Your task to perform on an android device: open app "The Home Depot" Image 0: 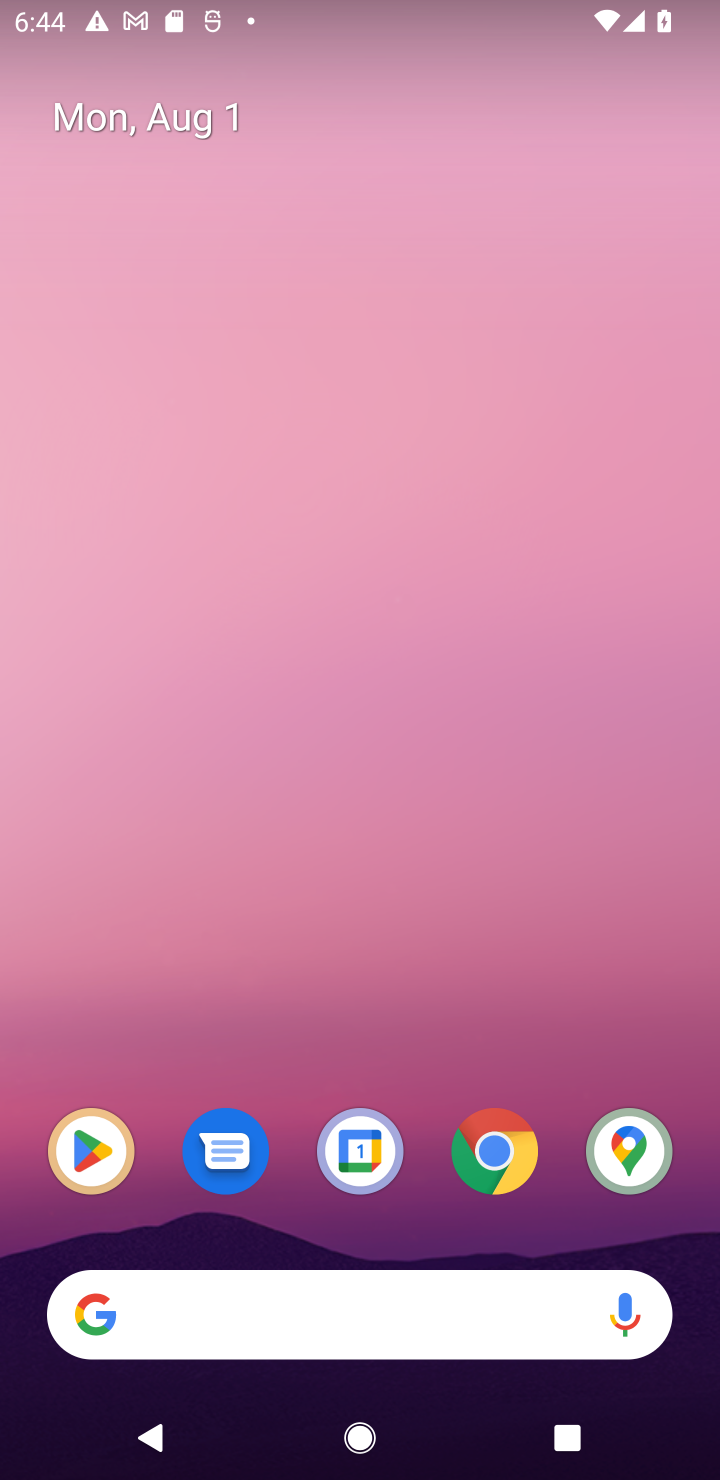
Step 0: drag from (344, 1311) to (244, 393)
Your task to perform on an android device: open app "The Home Depot" Image 1: 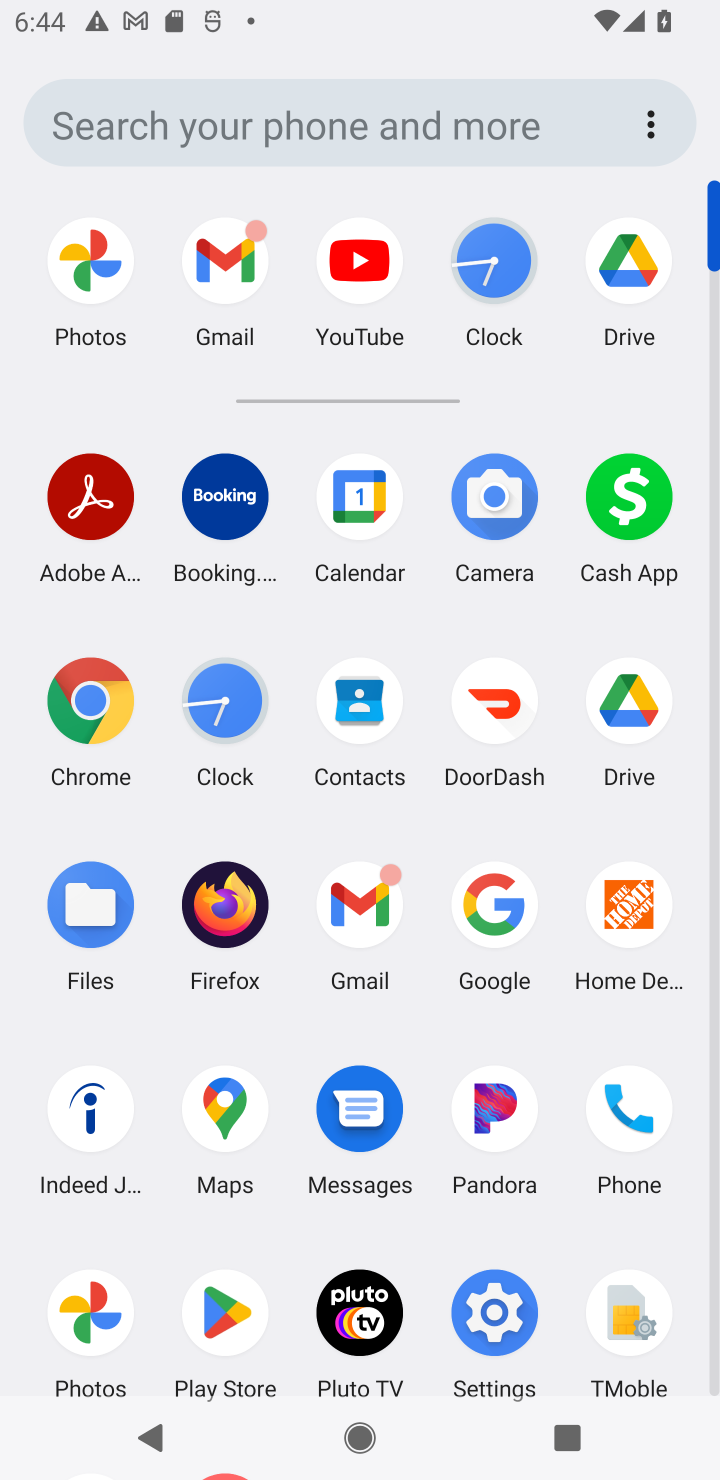
Step 1: click (224, 1301)
Your task to perform on an android device: open app "The Home Depot" Image 2: 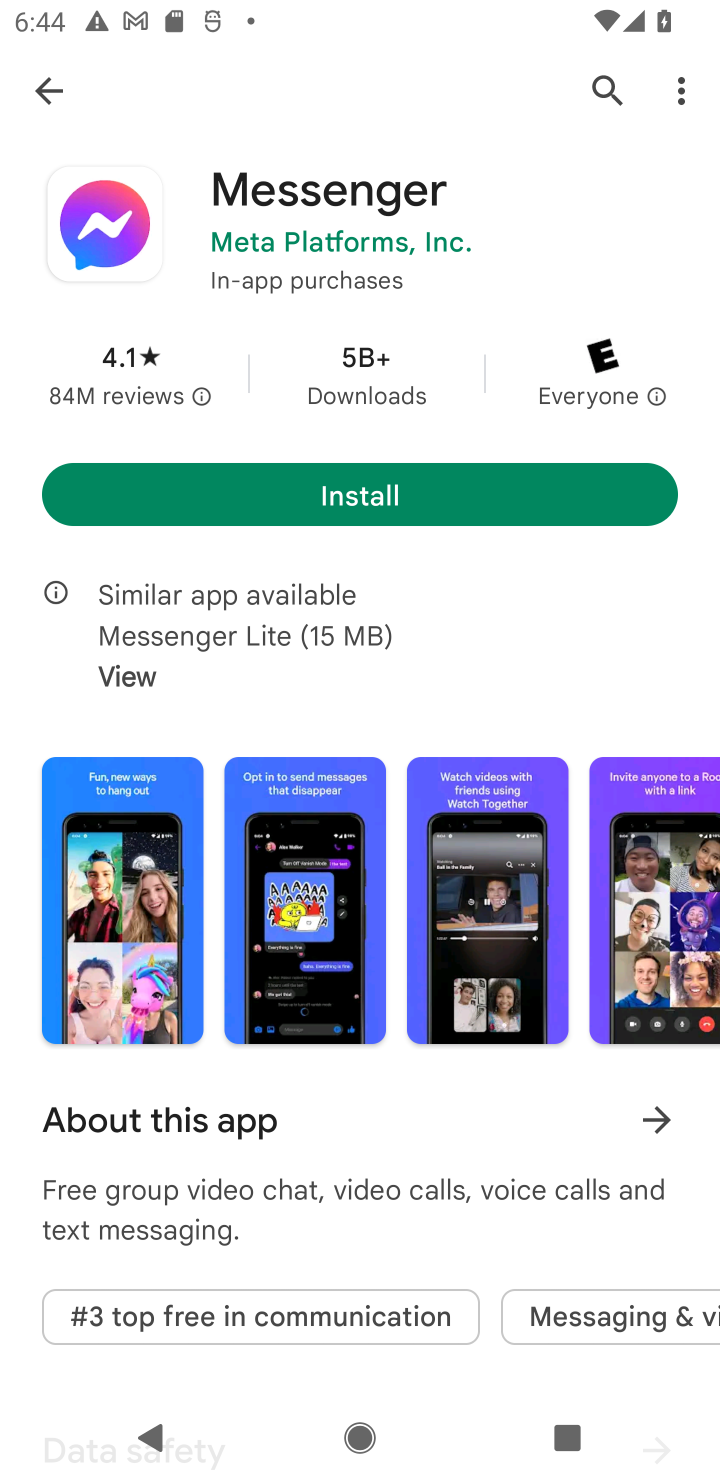
Step 2: click (592, 71)
Your task to perform on an android device: open app "The Home Depot" Image 3: 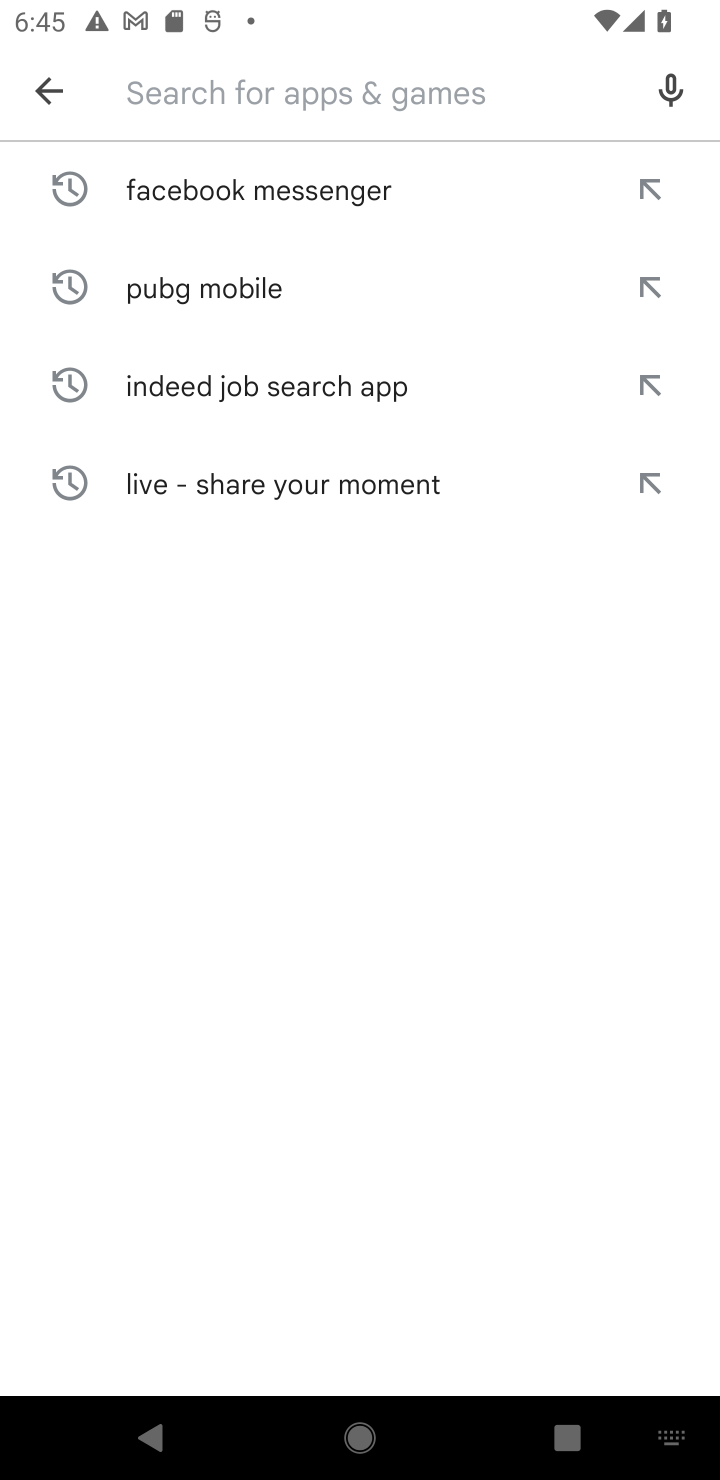
Step 3: type "the home depot"
Your task to perform on an android device: open app "The Home Depot" Image 4: 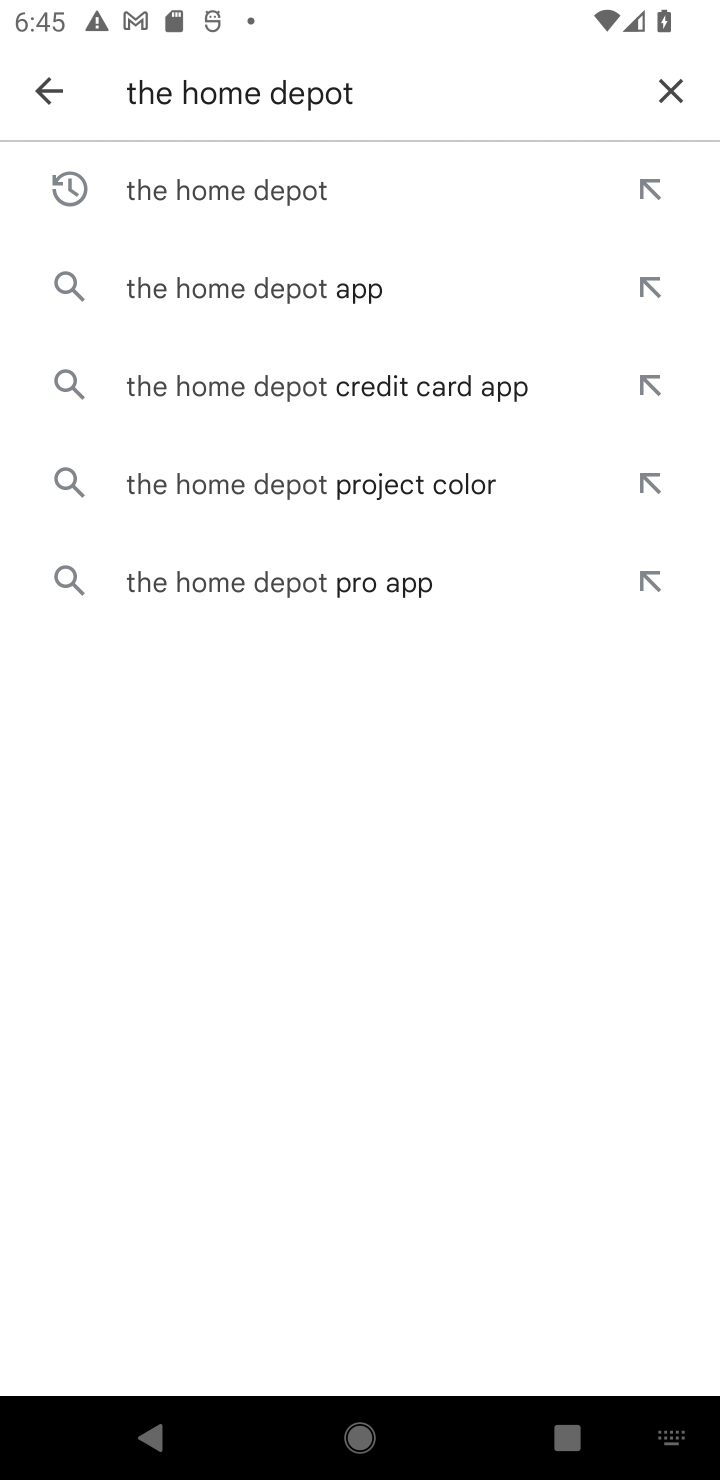
Step 4: click (172, 184)
Your task to perform on an android device: open app "The Home Depot" Image 5: 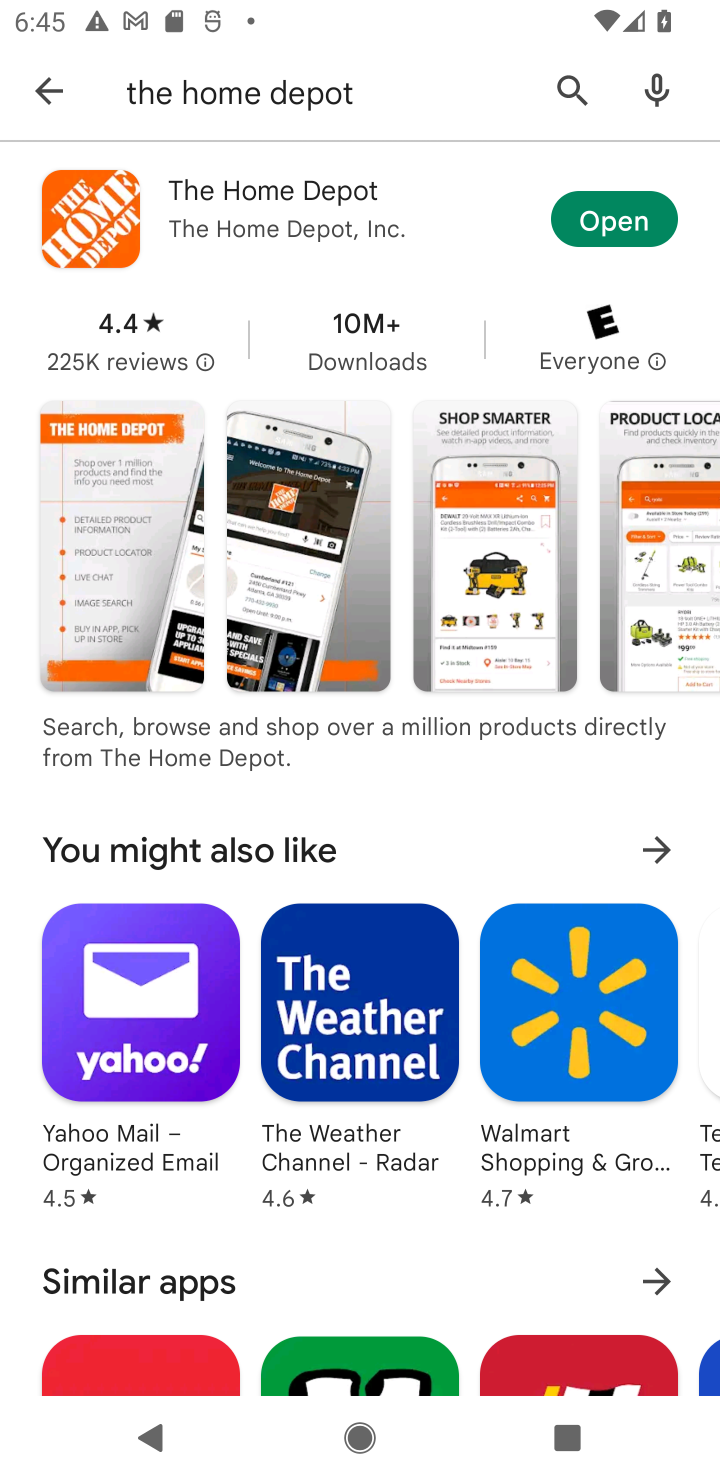
Step 5: click (604, 204)
Your task to perform on an android device: open app "The Home Depot" Image 6: 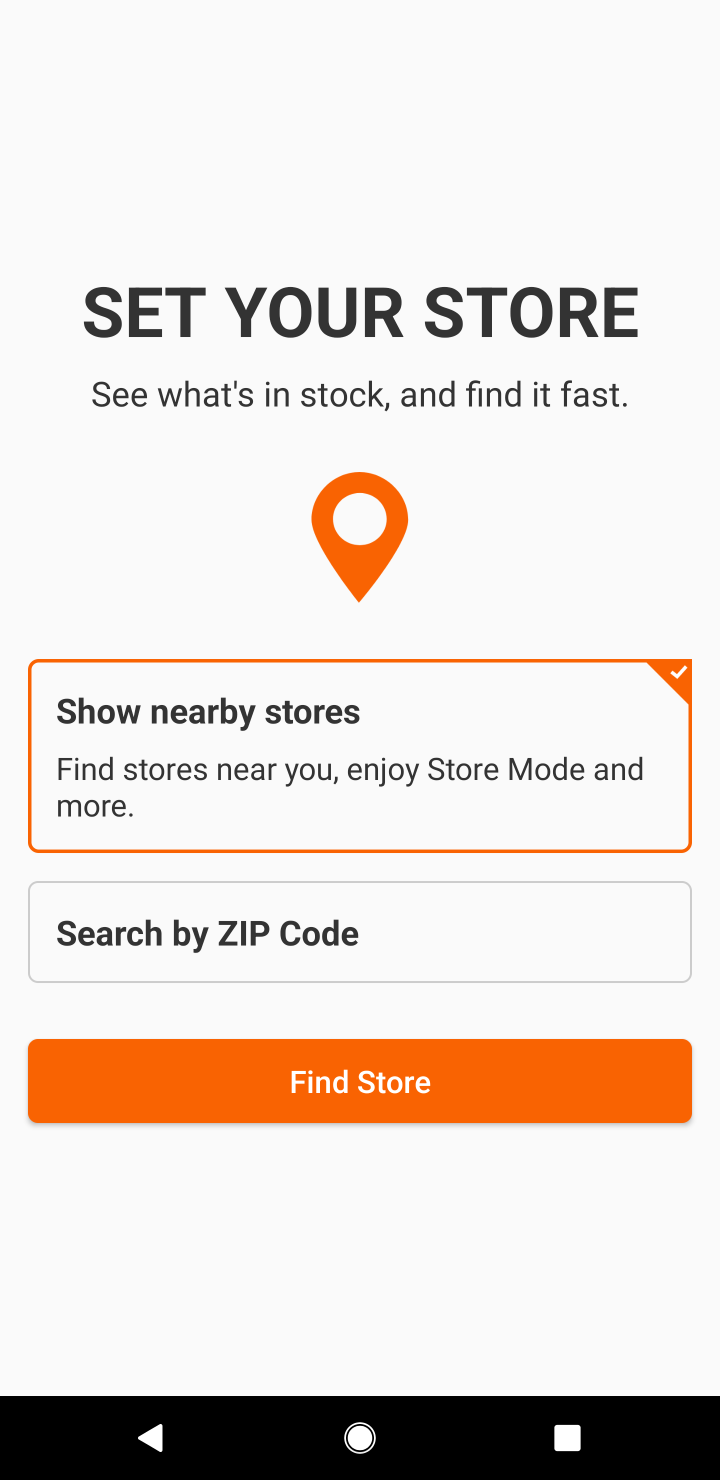
Step 6: task complete